Your task to perform on an android device: turn off wifi Image 0: 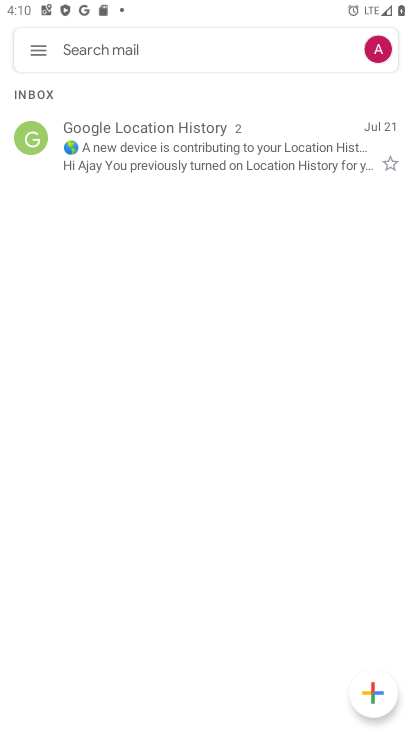
Step 0: press home button
Your task to perform on an android device: turn off wifi Image 1: 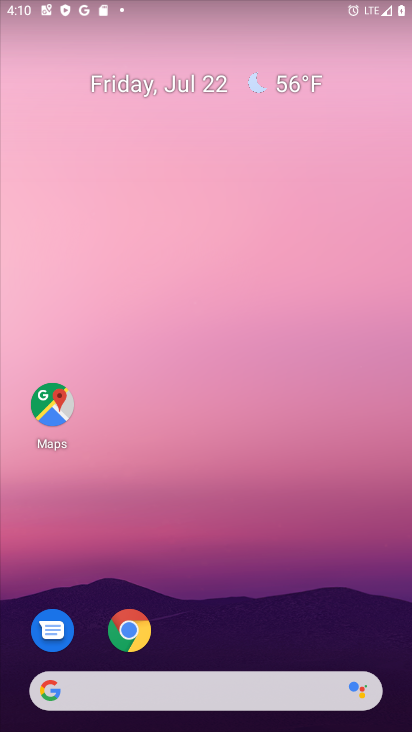
Step 1: drag from (197, 675) to (178, 200)
Your task to perform on an android device: turn off wifi Image 2: 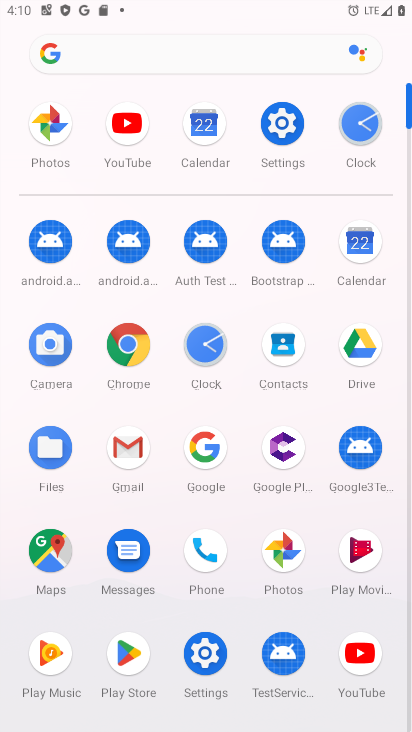
Step 2: click (285, 117)
Your task to perform on an android device: turn off wifi Image 3: 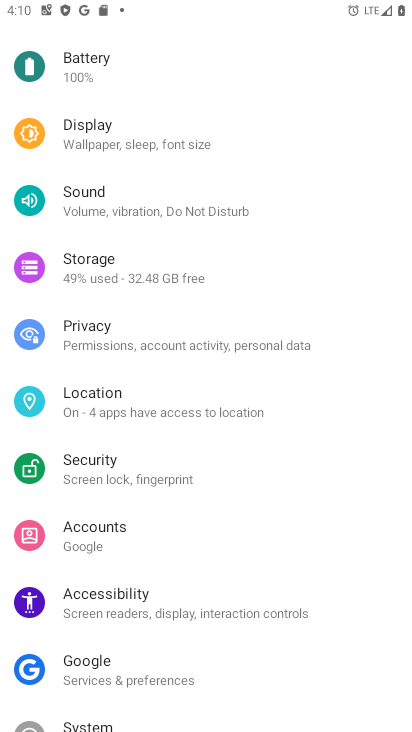
Step 3: drag from (98, 77) to (139, 430)
Your task to perform on an android device: turn off wifi Image 4: 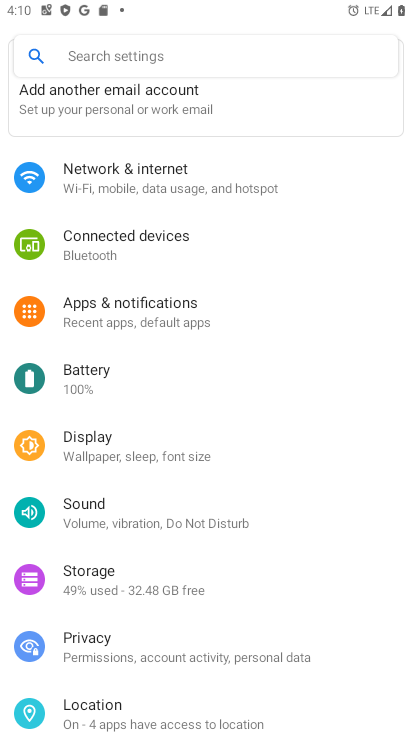
Step 4: click (136, 177)
Your task to perform on an android device: turn off wifi Image 5: 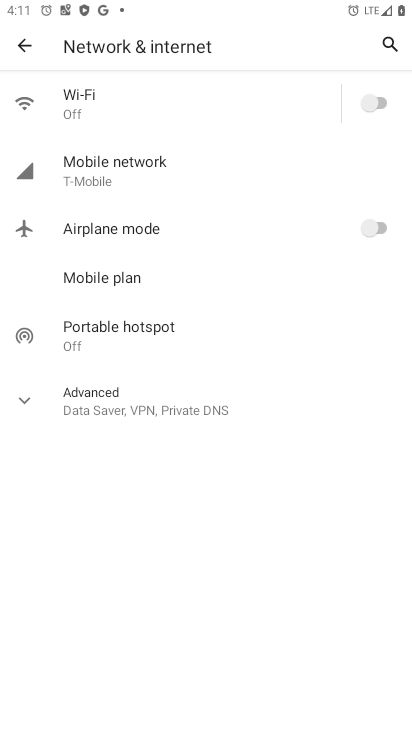
Step 5: task complete